Your task to perform on an android device: set default search engine in the chrome app Image 0: 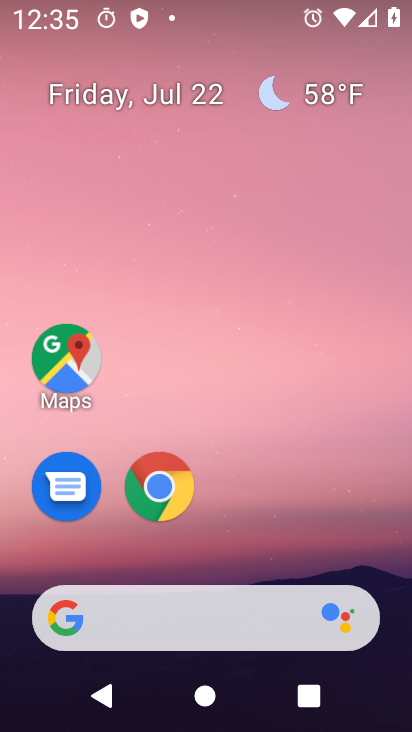
Step 0: press home button
Your task to perform on an android device: set default search engine in the chrome app Image 1: 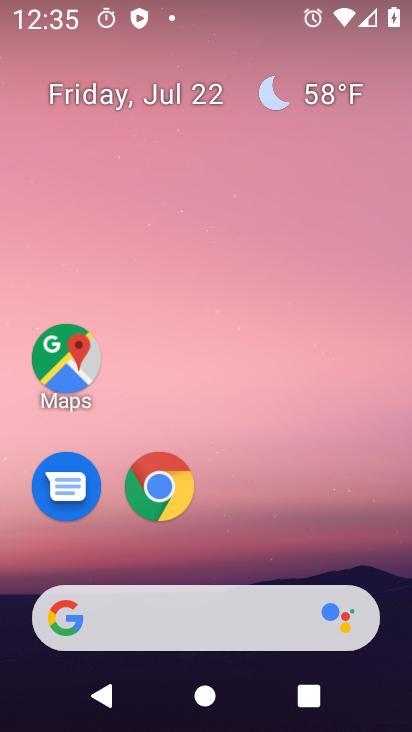
Step 1: drag from (392, 540) to (377, 166)
Your task to perform on an android device: set default search engine in the chrome app Image 2: 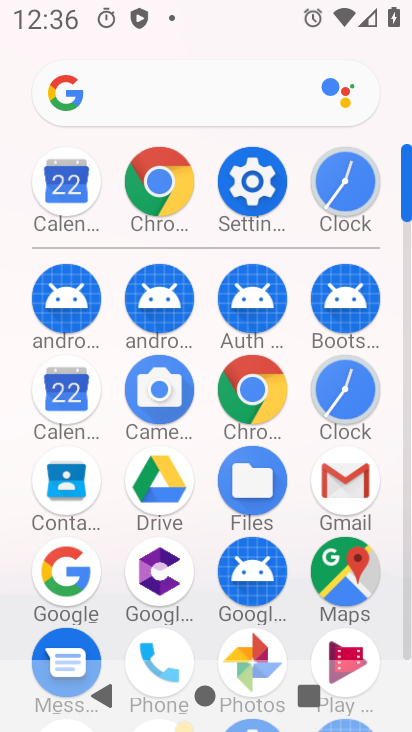
Step 2: click (263, 390)
Your task to perform on an android device: set default search engine in the chrome app Image 3: 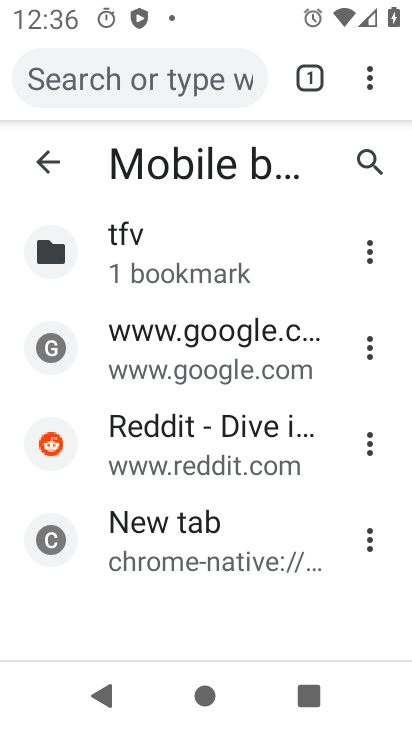
Step 3: click (368, 86)
Your task to perform on an android device: set default search engine in the chrome app Image 4: 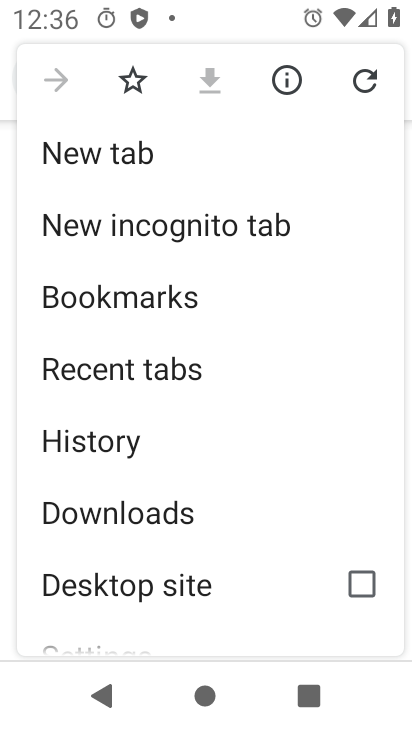
Step 4: drag from (343, 361) to (343, 323)
Your task to perform on an android device: set default search engine in the chrome app Image 5: 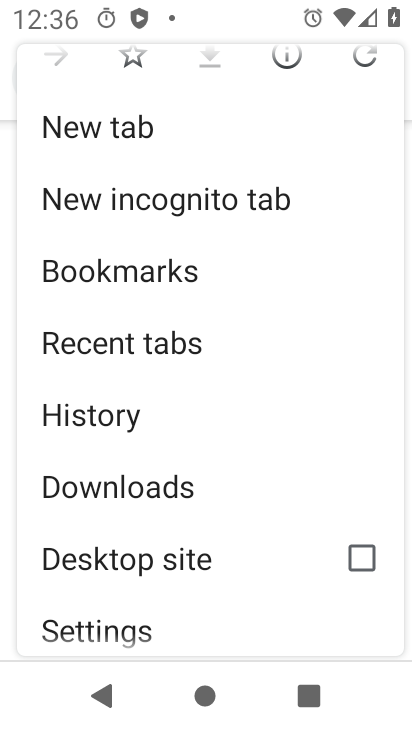
Step 5: drag from (315, 406) to (314, 325)
Your task to perform on an android device: set default search engine in the chrome app Image 6: 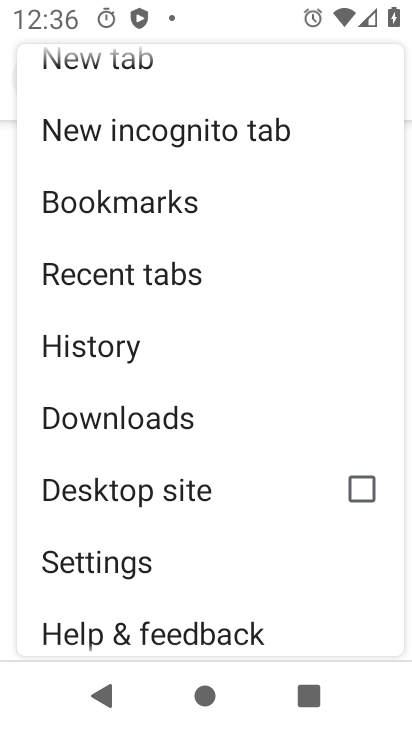
Step 6: drag from (272, 440) to (278, 338)
Your task to perform on an android device: set default search engine in the chrome app Image 7: 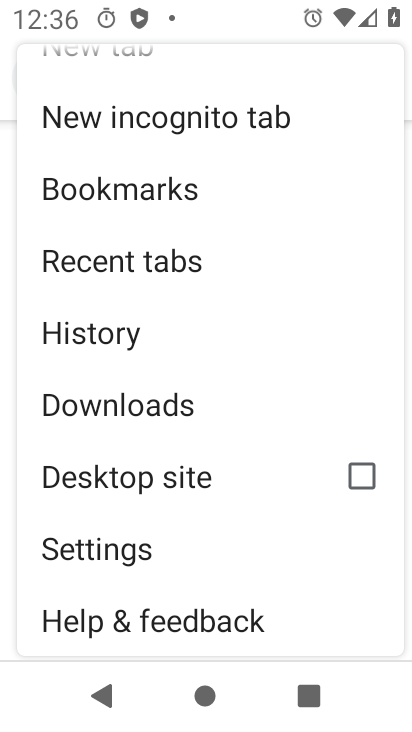
Step 7: click (183, 550)
Your task to perform on an android device: set default search engine in the chrome app Image 8: 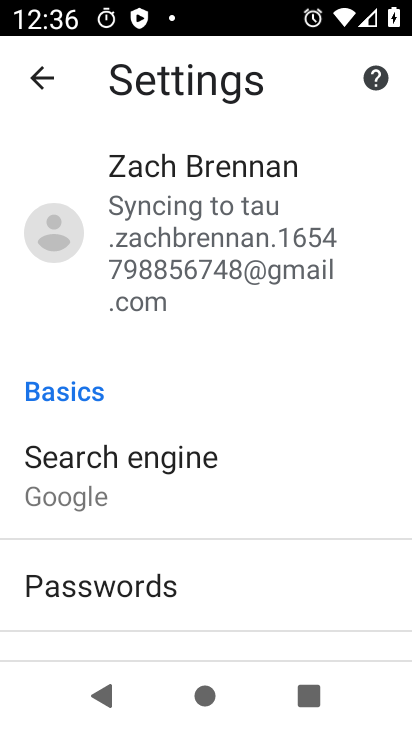
Step 8: click (190, 502)
Your task to perform on an android device: set default search engine in the chrome app Image 9: 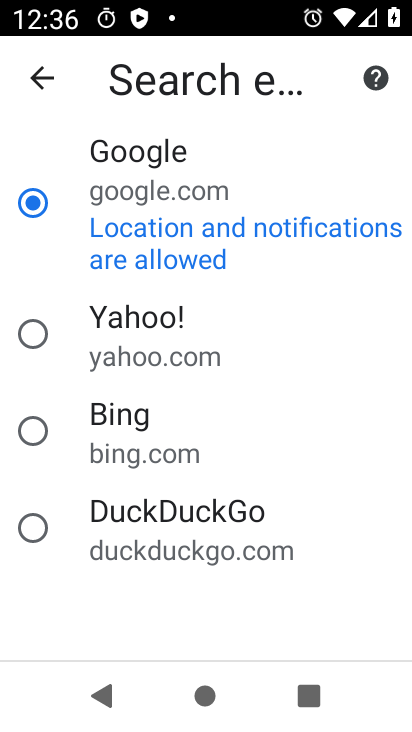
Step 9: click (147, 437)
Your task to perform on an android device: set default search engine in the chrome app Image 10: 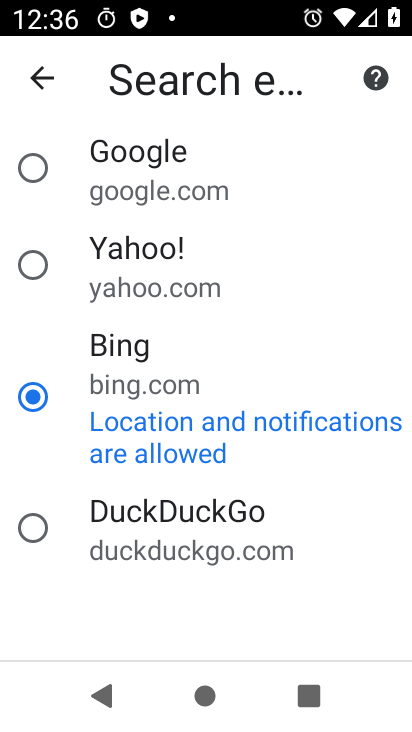
Step 10: task complete